Your task to perform on an android device: check storage Image 0: 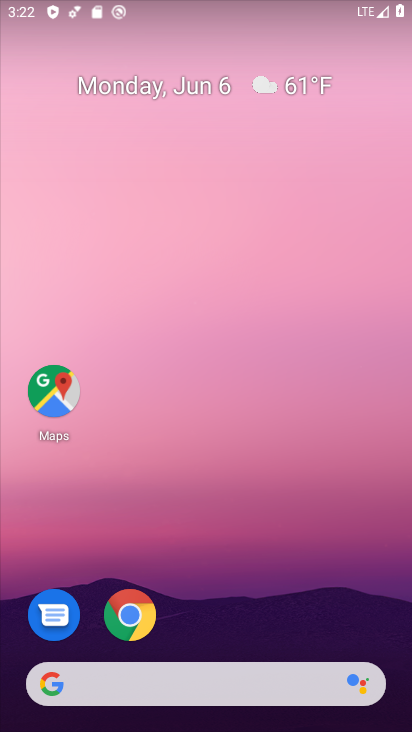
Step 0: drag from (364, 620) to (291, 77)
Your task to perform on an android device: check storage Image 1: 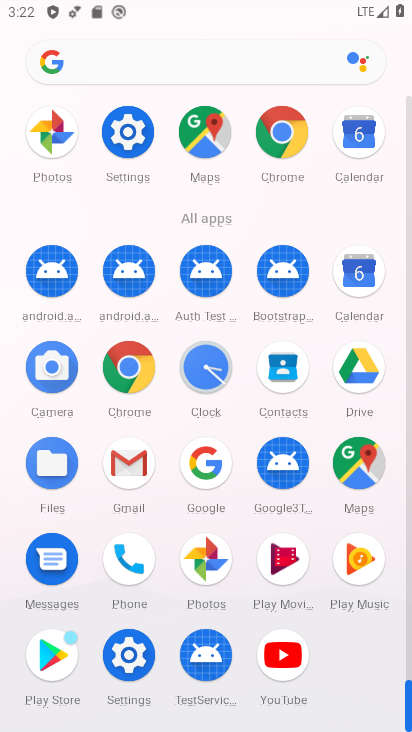
Step 1: click (128, 647)
Your task to perform on an android device: check storage Image 2: 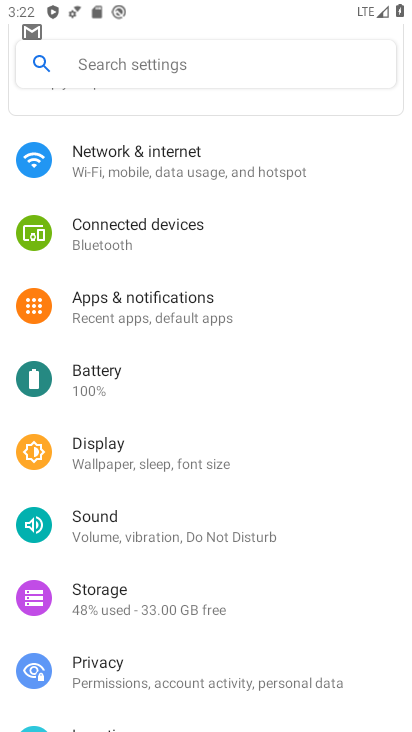
Step 2: click (103, 587)
Your task to perform on an android device: check storage Image 3: 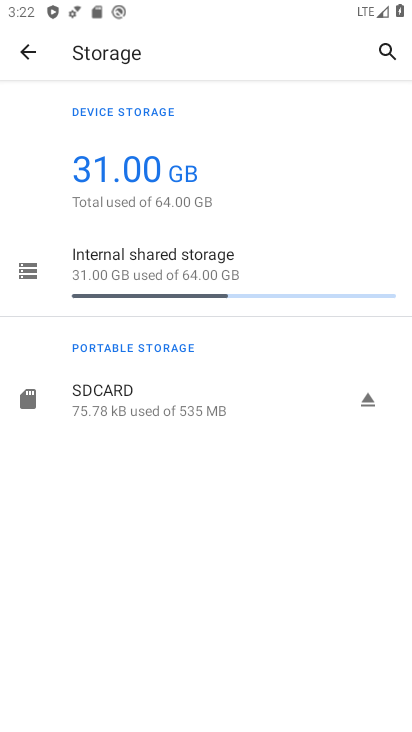
Step 3: task complete